Your task to perform on an android device: Go to calendar. Show me events next week Image 0: 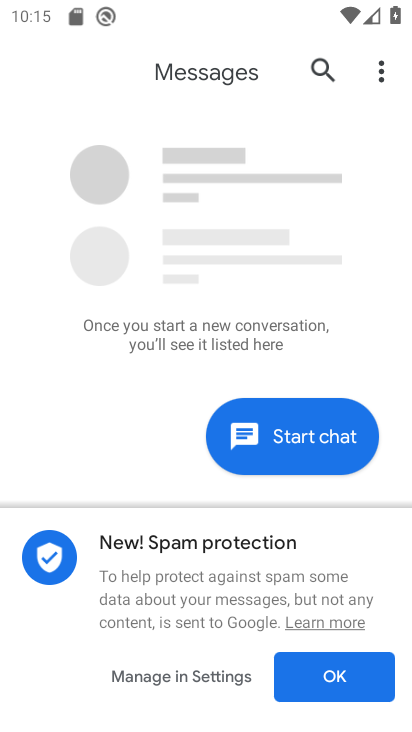
Step 0: press home button
Your task to perform on an android device: Go to calendar. Show me events next week Image 1: 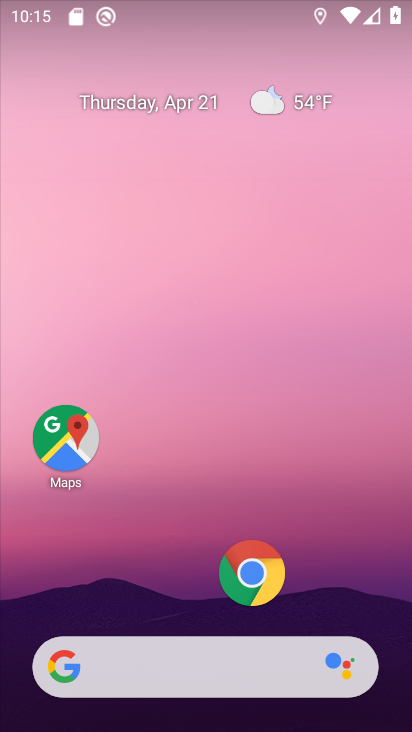
Step 1: drag from (177, 601) to (222, 47)
Your task to perform on an android device: Go to calendar. Show me events next week Image 2: 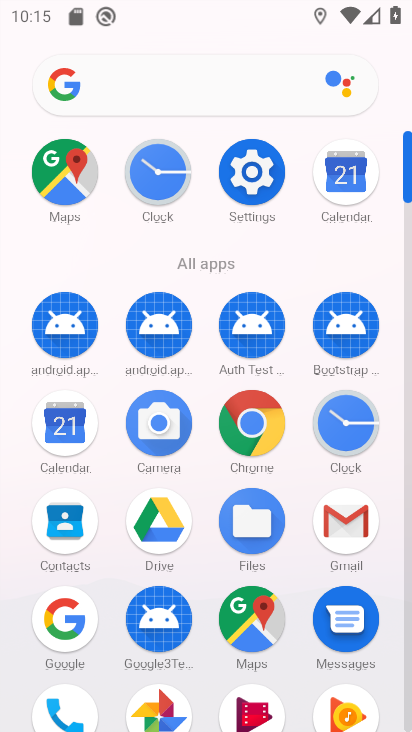
Step 2: click (77, 439)
Your task to perform on an android device: Go to calendar. Show me events next week Image 3: 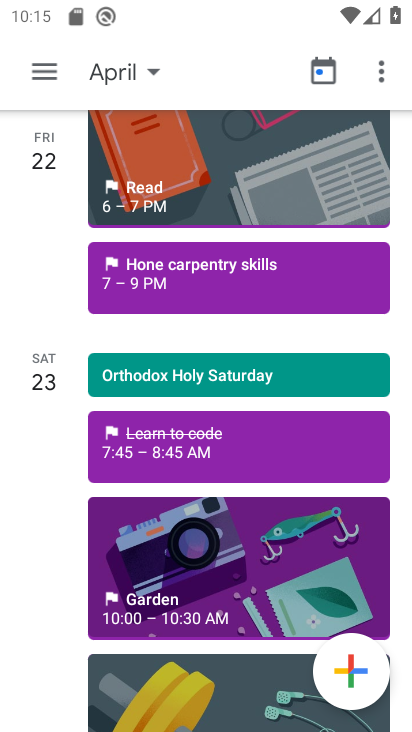
Step 3: click (140, 73)
Your task to perform on an android device: Go to calendar. Show me events next week Image 4: 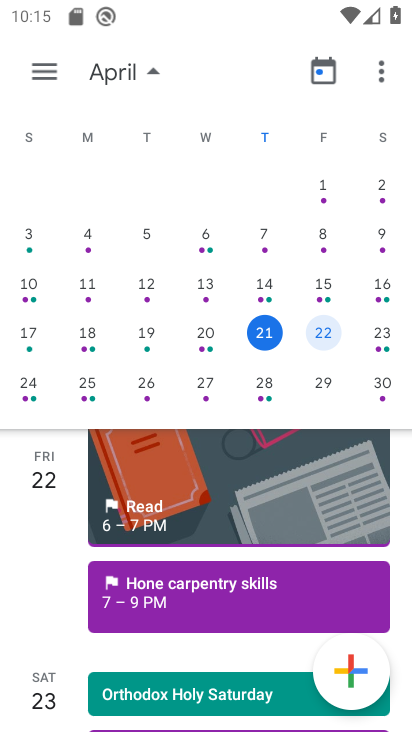
Step 4: click (269, 380)
Your task to perform on an android device: Go to calendar. Show me events next week Image 5: 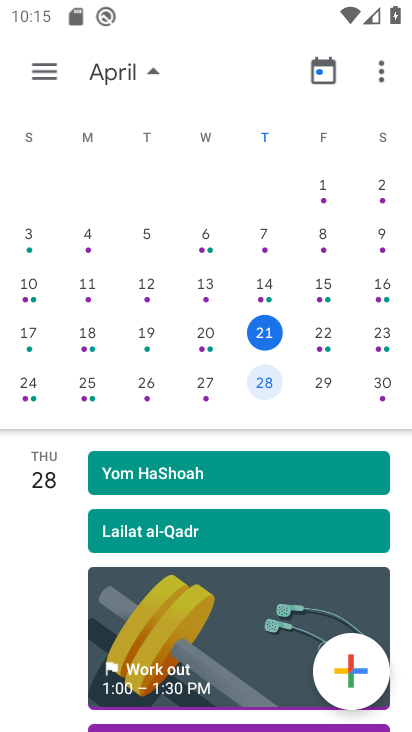
Step 5: task complete